Your task to perform on an android device: Show me popular games on the Play Store Image 0: 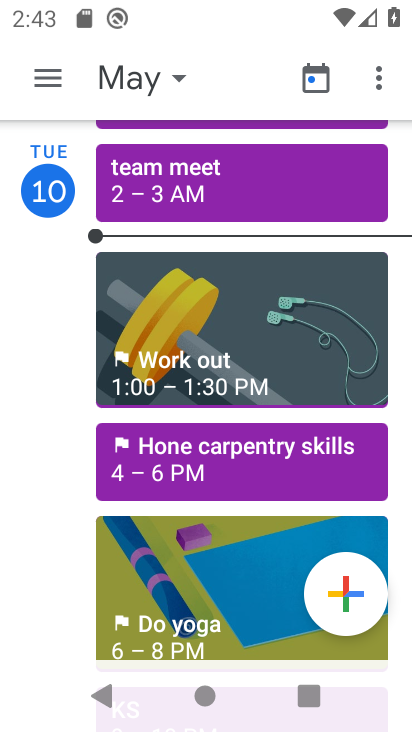
Step 0: press home button
Your task to perform on an android device: Show me popular games on the Play Store Image 1: 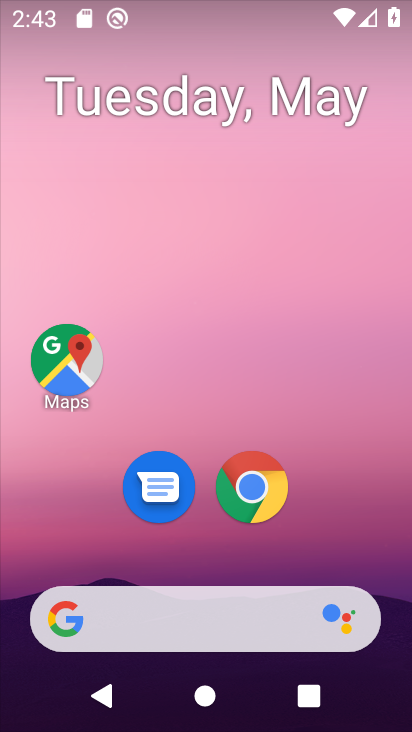
Step 1: drag from (367, 482) to (328, 222)
Your task to perform on an android device: Show me popular games on the Play Store Image 2: 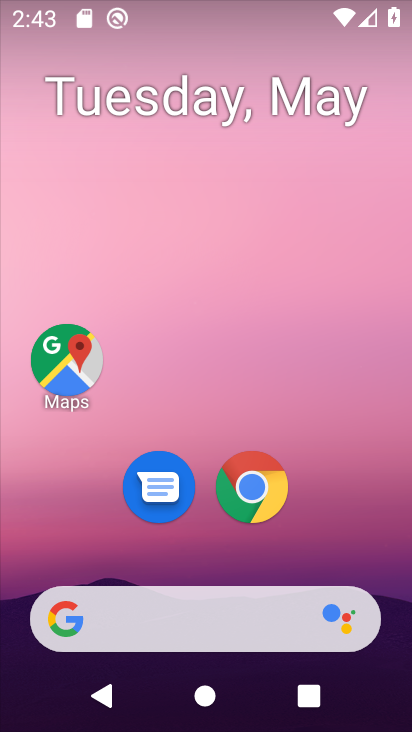
Step 2: drag from (398, 622) to (374, 383)
Your task to perform on an android device: Show me popular games on the Play Store Image 3: 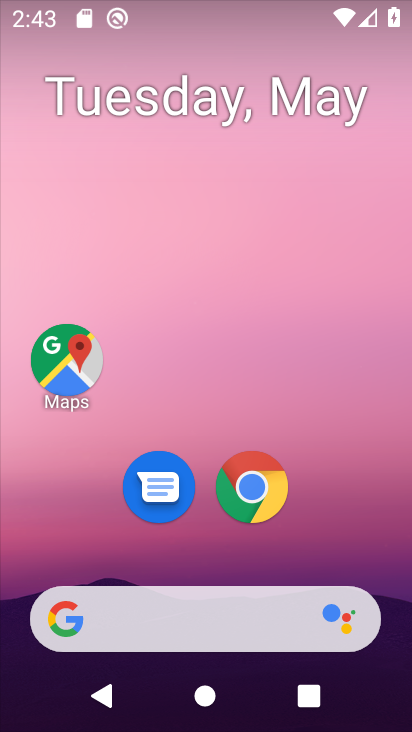
Step 3: drag from (395, 638) to (406, 277)
Your task to perform on an android device: Show me popular games on the Play Store Image 4: 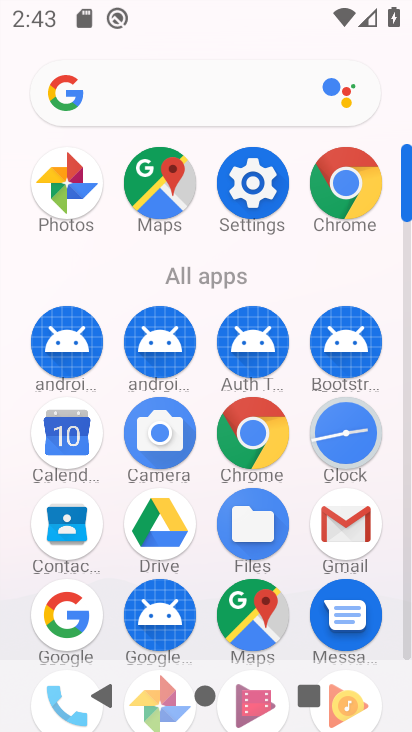
Step 4: drag from (405, 159) to (395, 103)
Your task to perform on an android device: Show me popular games on the Play Store Image 5: 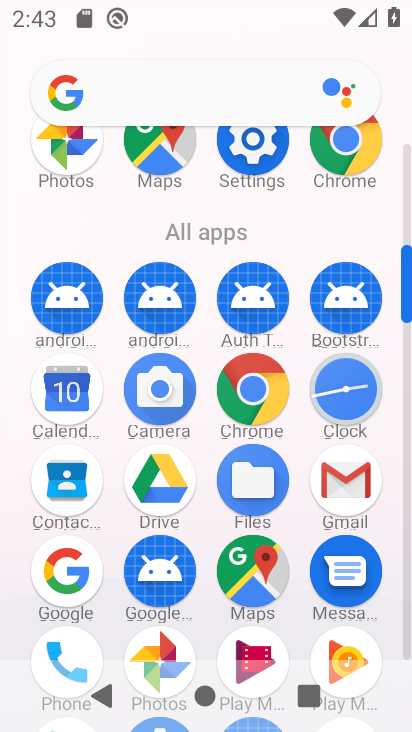
Step 5: drag from (406, 254) to (394, 177)
Your task to perform on an android device: Show me popular games on the Play Store Image 6: 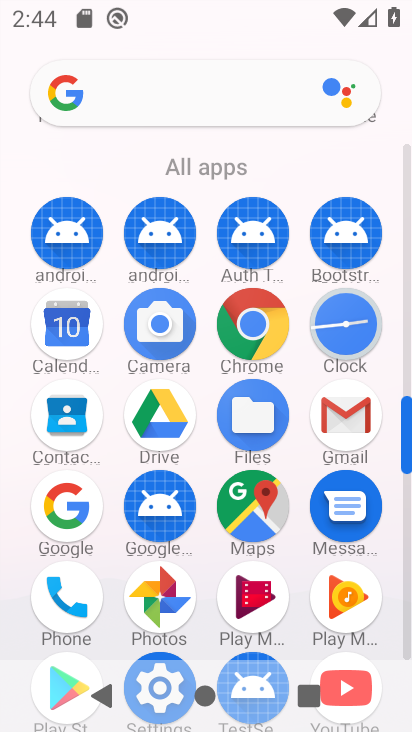
Step 6: drag from (405, 407) to (411, 301)
Your task to perform on an android device: Show me popular games on the Play Store Image 7: 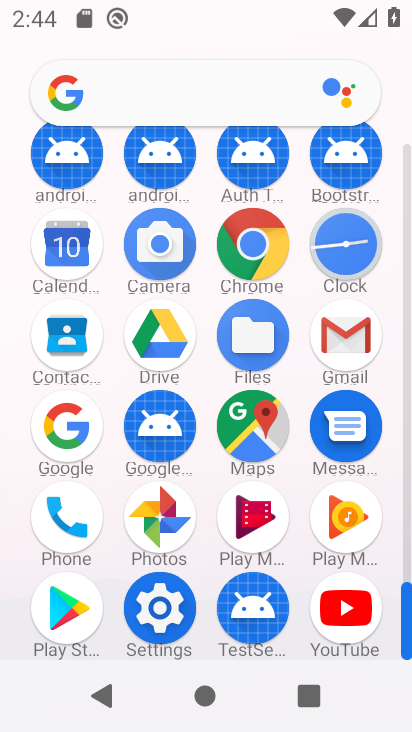
Step 7: click (66, 600)
Your task to perform on an android device: Show me popular games on the Play Store Image 8: 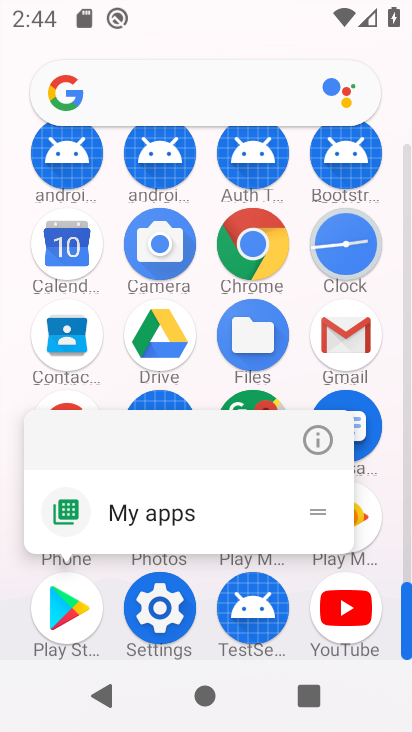
Step 8: click (54, 607)
Your task to perform on an android device: Show me popular games on the Play Store Image 9: 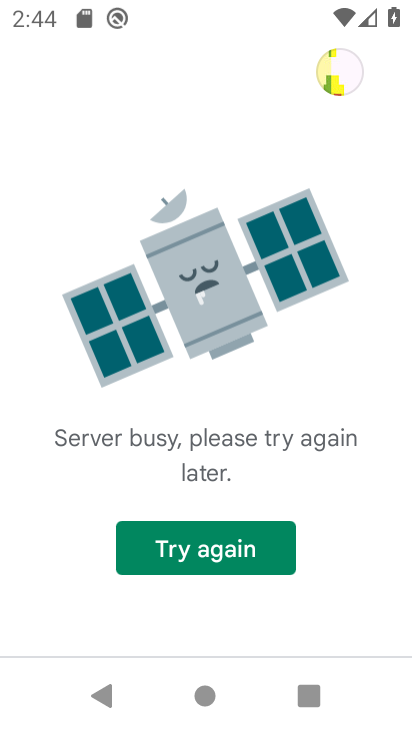
Step 9: task complete